Your task to perform on an android device: Go to Google Image 0: 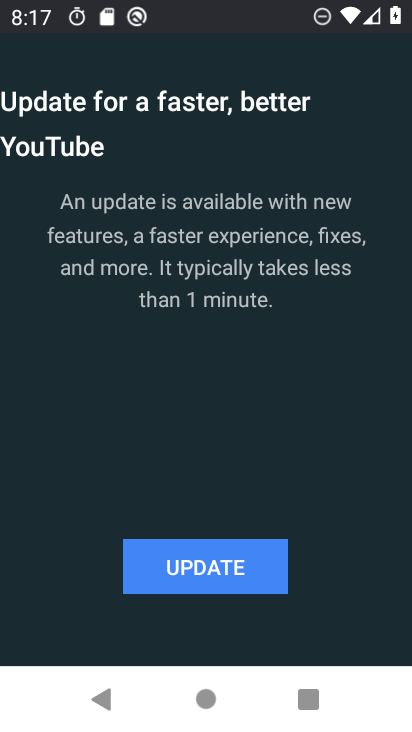
Step 0: press back button
Your task to perform on an android device: Go to Google Image 1: 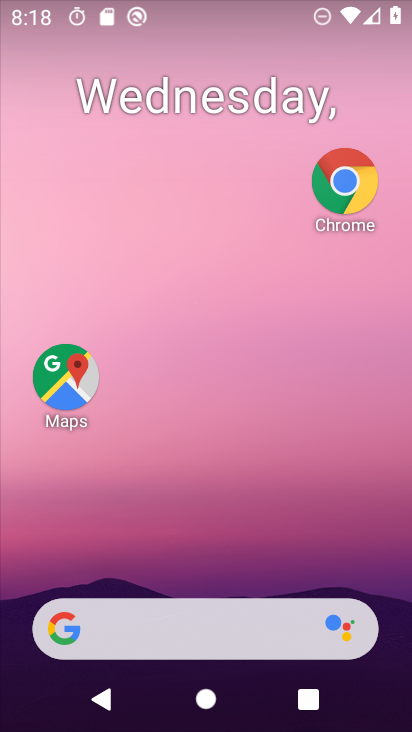
Step 1: drag from (312, 663) to (261, 187)
Your task to perform on an android device: Go to Google Image 2: 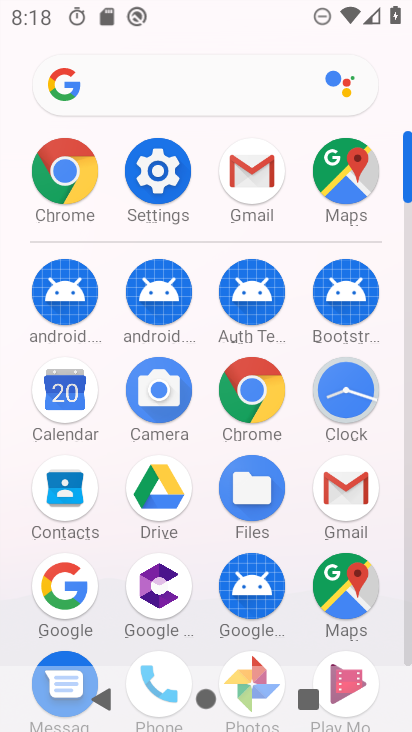
Step 2: click (60, 182)
Your task to perform on an android device: Go to Google Image 3: 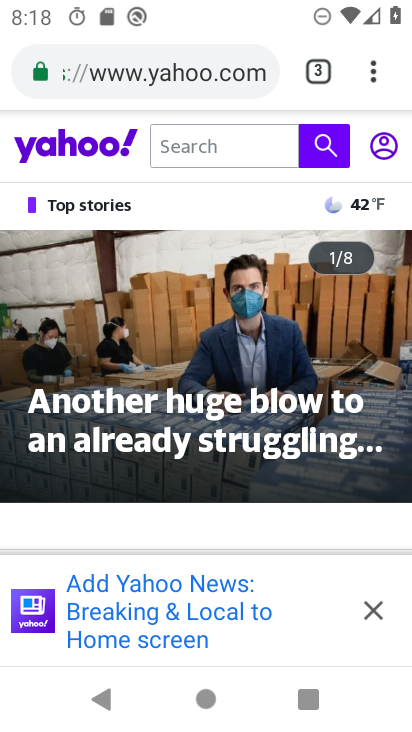
Step 3: click (217, 72)
Your task to perform on an android device: Go to Google Image 4: 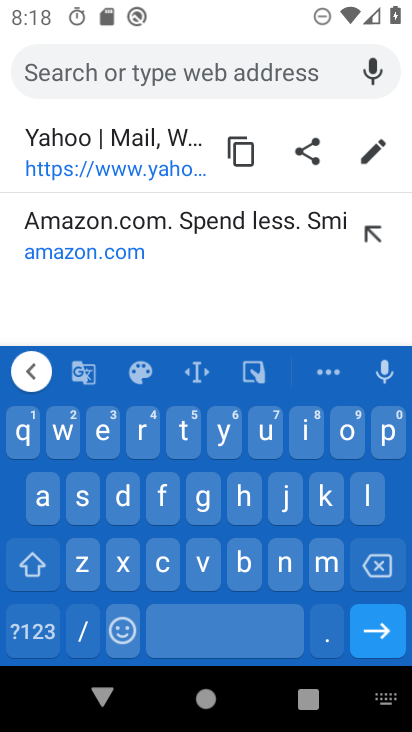
Step 4: click (208, 503)
Your task to perform on an android device: Go to Google Image 5: 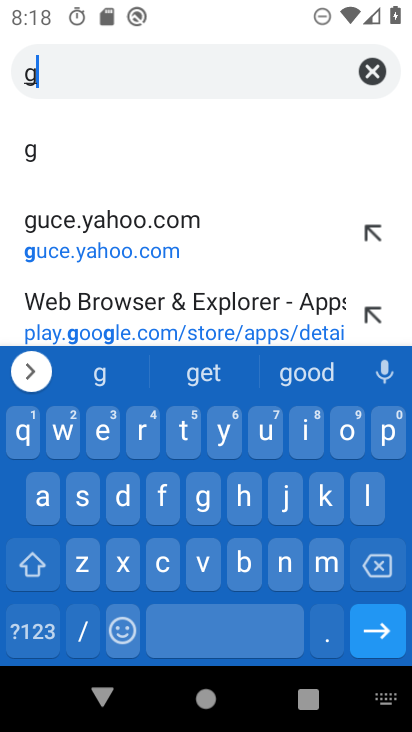
Step 5: click (335, 448)
Your task to perform on an android device: Go to Google Image 6: 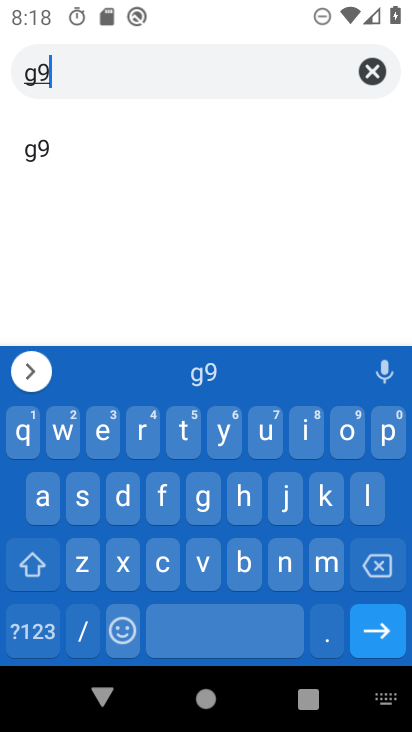
Step 6: click (394, 582)
Your task to perform on an android device: Go to Google Image 7: 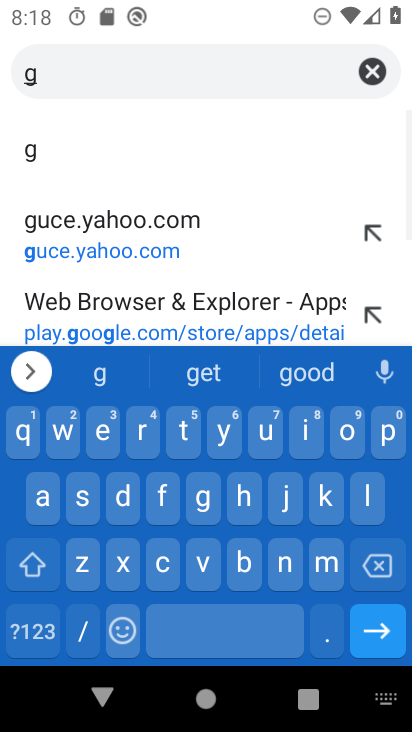
Step 7: click (342, 444)
Your task to perform on an android device: Go to Google Image 8: 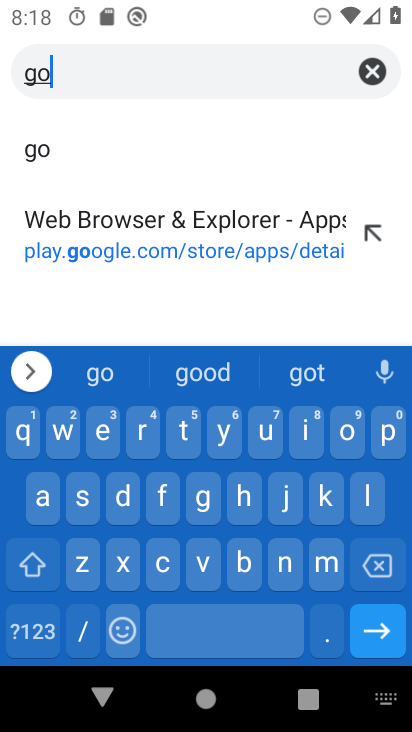
Step 8: click (342, 444)
Your task to perform on an android device: Go to Google Image 9: 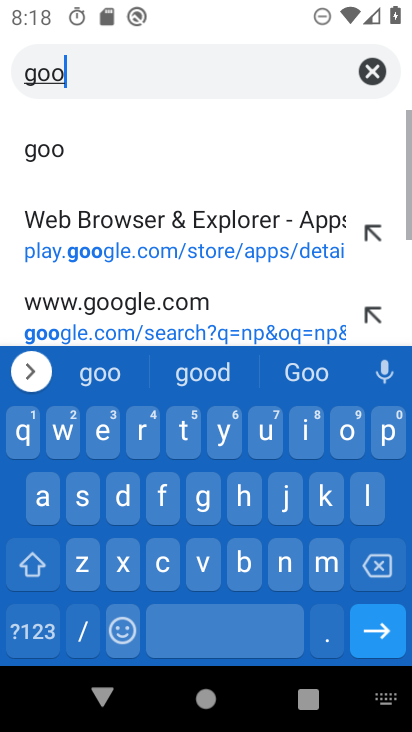
Step 9: drag from (237, 418) to (244, 462)
Your task to perform on an android device: Go to Google Image 10: 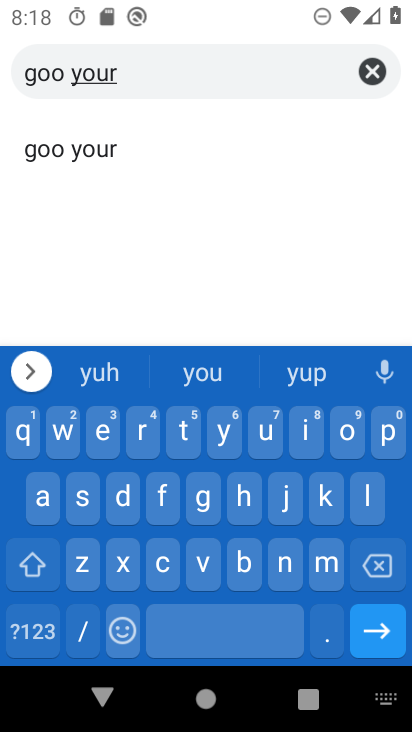
Step 10: click (374, 565)
Your task to perform on an android device: Go to Google Image 11: 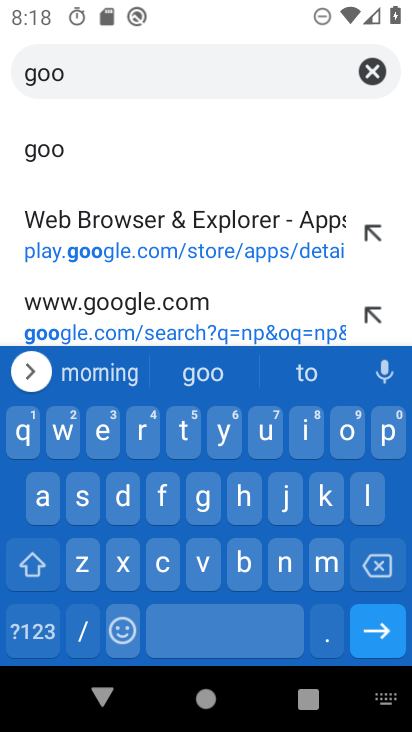
Step 11: click (180, 312)
Your task to perform on an android device: Go to Google Image 12: 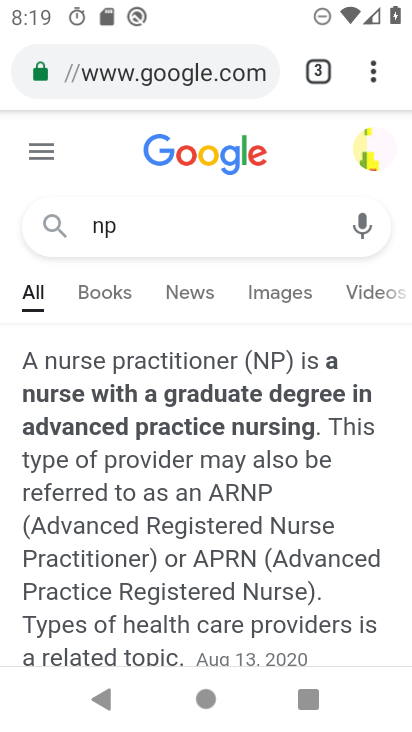
Step 12: click (193, 74)
Your task to perform on an android device: Go to Google Image 13: 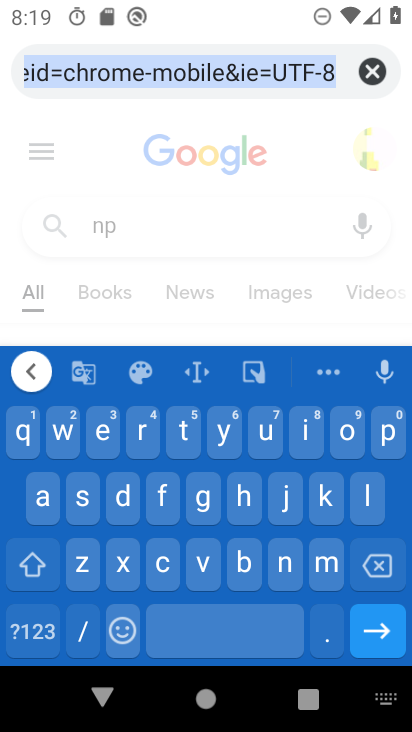
Step 13: click (376, 74)
Your task to perform on an android device: Go to Google Image 14: 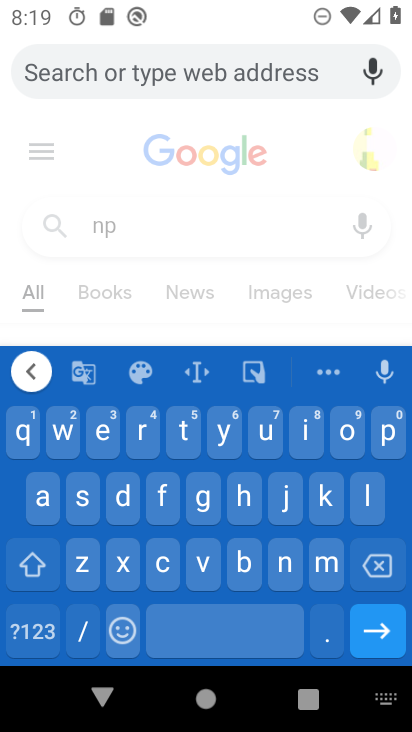
Step 14: click (206, 506)
Your task to perform on an android device: Go to Google Image 15: 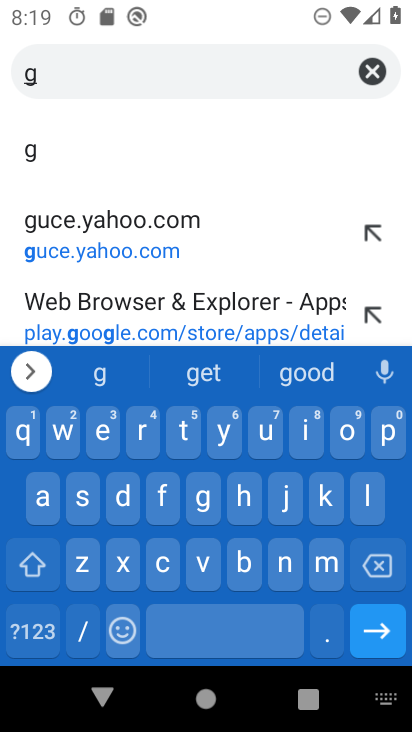
Step 15: click (346, 452)
Your task to perform on an android device: Go to Google Image 16: 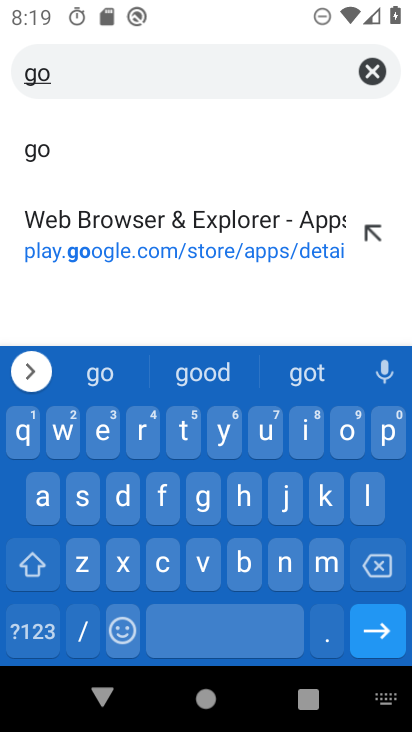
Step 16: drag from (346, 452) to (243, 488)
Your task to perform on an android device: Go to Google Image 17: 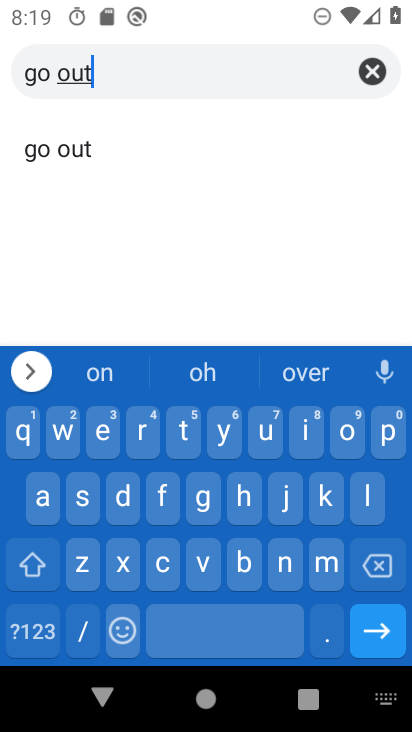
Step 17: click (387, 566)
Your task to perform on an android device: Go to Google Image 18: 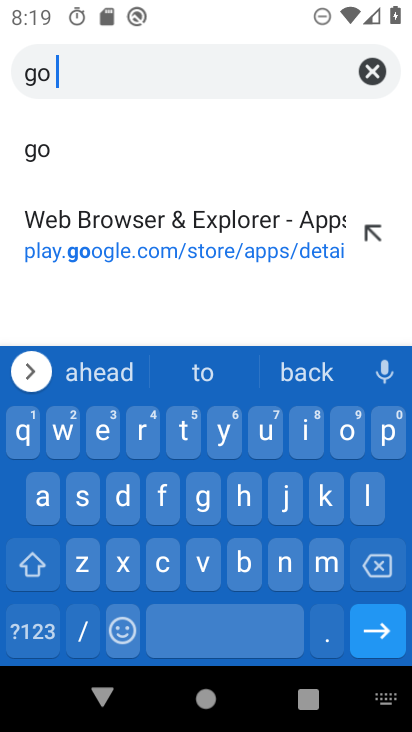
Step 18: click (387, 566)
Your task to perform on an android device: Go to Google Image 19: 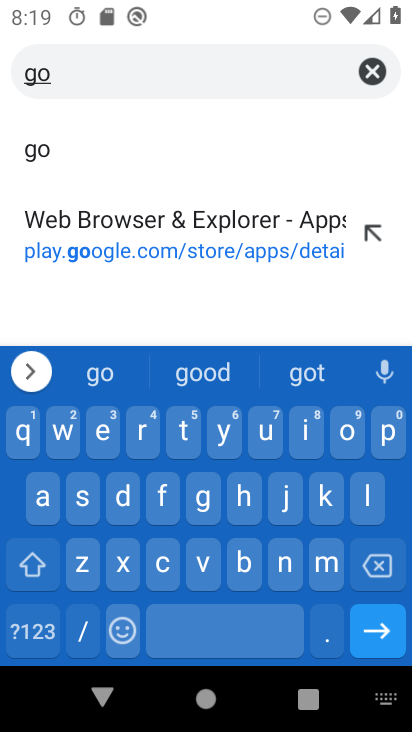
Step 19: click (341, 444)
Your task to perform on an android device: Go to Google Image 20: 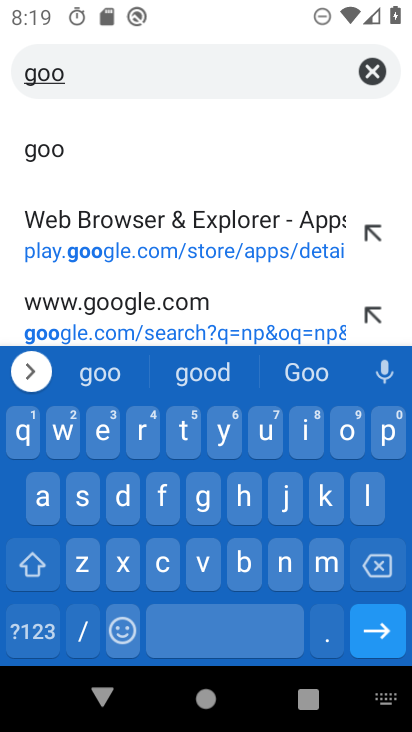
Step 20: click (209, 500)
Your task to perform on an android device: Go to Google Image 21: 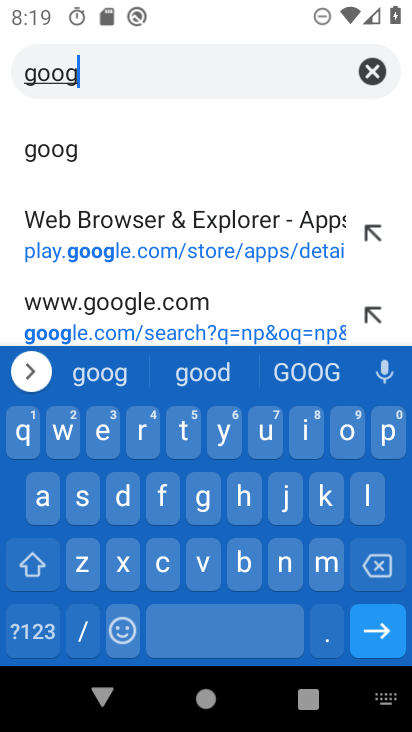
Step 21: click (368, 504)
Your task to perform on an android device: Go to Google Image 22: 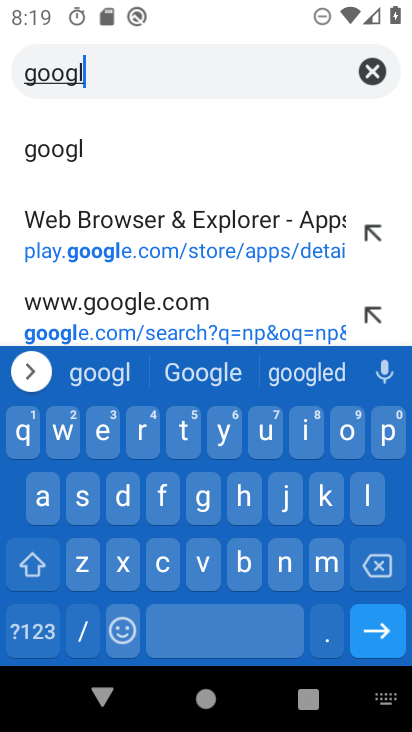
Step 22: click (101, 443)
Your task to perform on an android device: Go to Google Image 23: 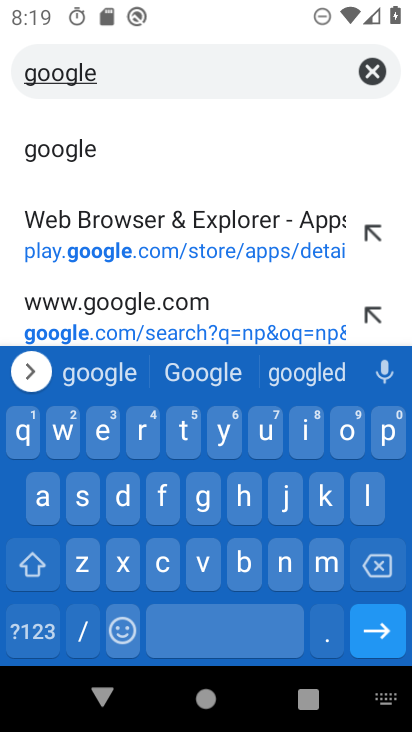
Step 23: click (148, 168)
Your task to perform on an android device: Go to Google Image 24: 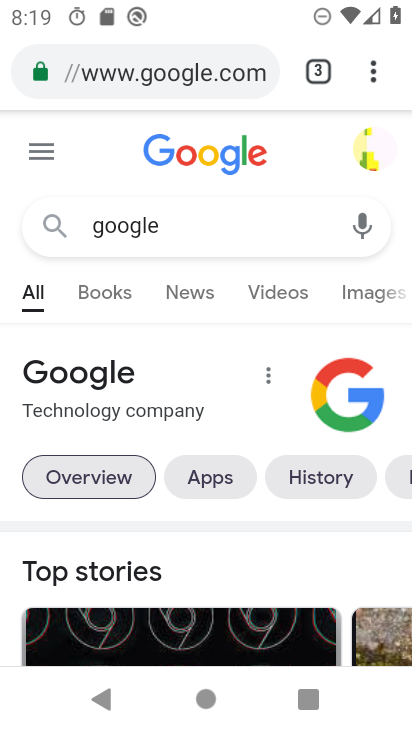
Step 24: drag from (218, 531) to (246, 222)
Your task to perform on an android device: Go to Google Image 25: 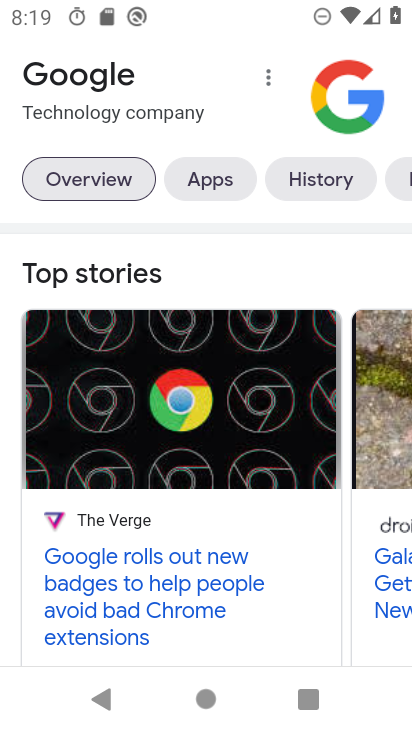
Step 25: drag from (196, 519) to (211, 169)
Your task to perform on an android device: Go to Google Image 26: 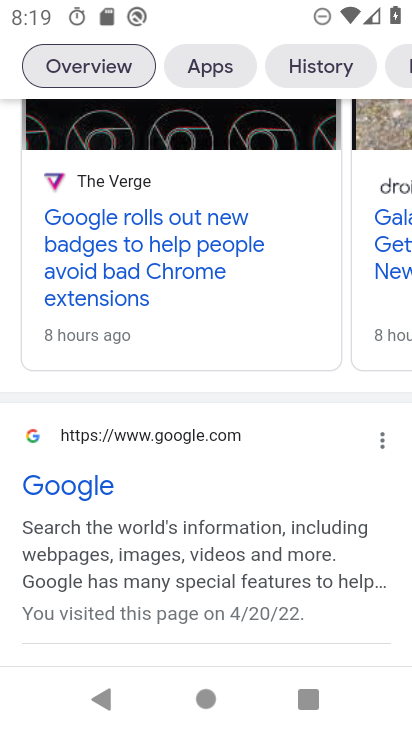
Step 26: click (102, 483)
Your task to perform on an android device: Go to Google Image 27: 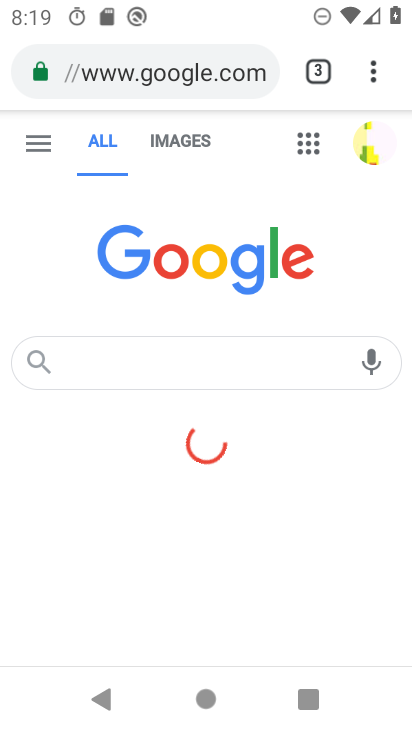
Step 27: task complete